Your task to perform on an android device: find photos in the google photos app Image 0: 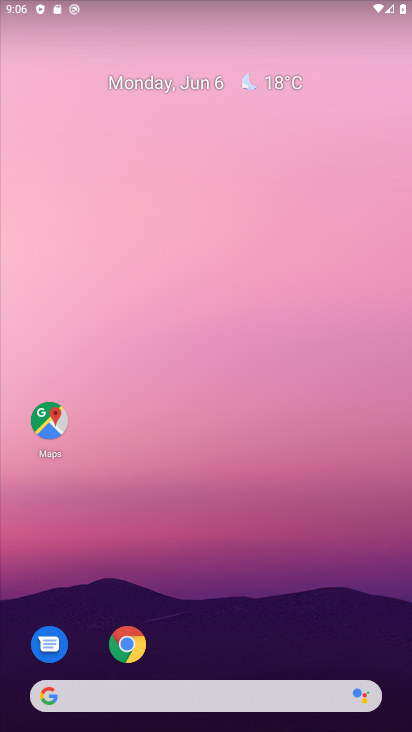
Step 0: drag from (335, 574) to (335, 166)
Your task to perform on an android device: find photos in the google photos app Image 1: 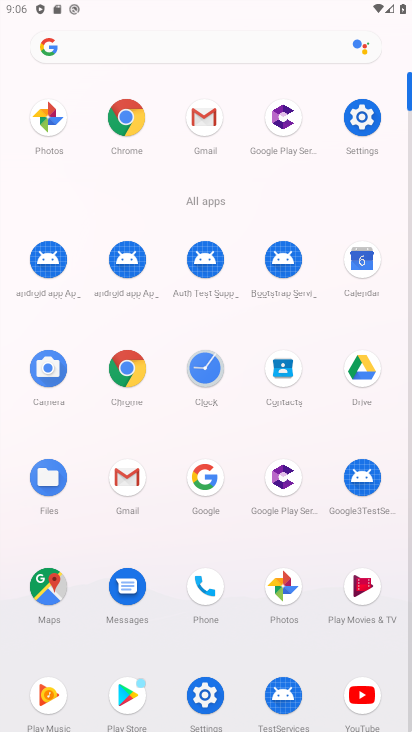
Step 1: click (291, 602)
Your task to perform on an android device: find photos in the google photos app Image 2: 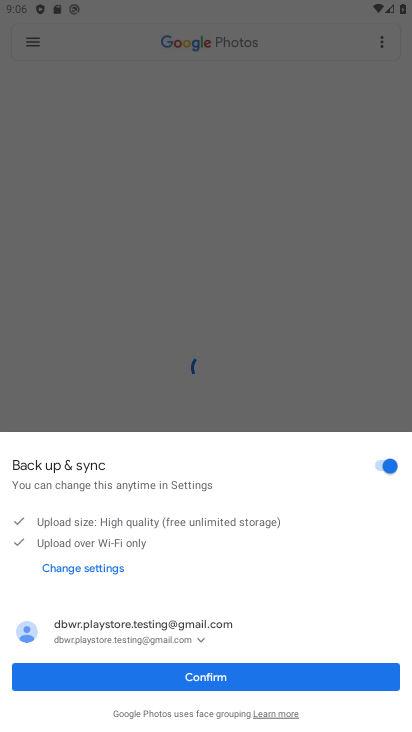
Step 2: click (290, 686)
Your task to perform on an android device: find photos in the google photos app Image 3: 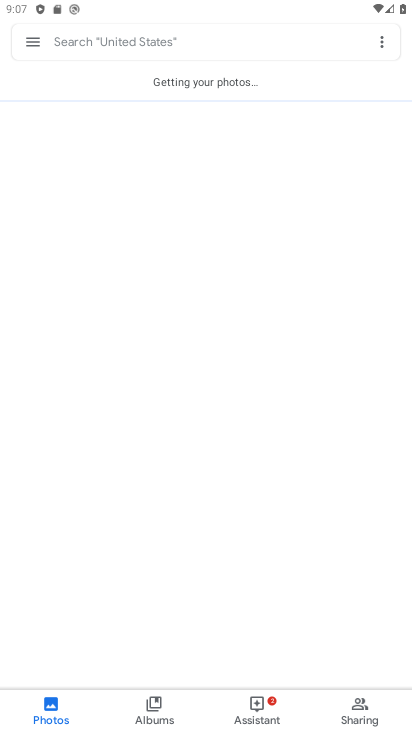
Step 3: click (27, 50)
Your task to perform on an android device: find photos in the google photos app Image 4: 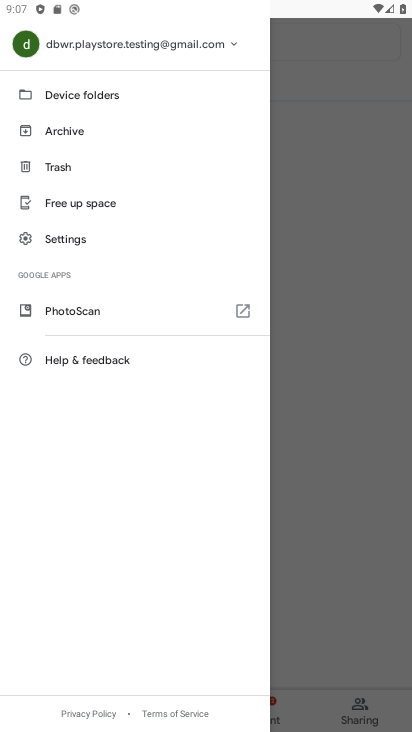
Step 4: click (341, 350)
Your task to perform on an android device: find photos in the google photos app Image 5: 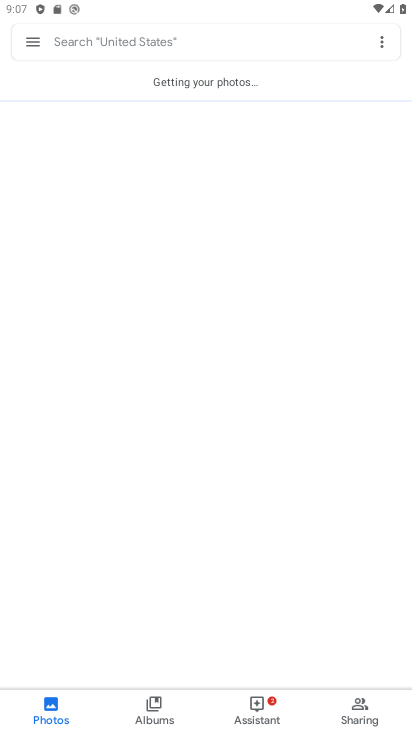
Step 5: task complete